Your task to perform on an android device: Go to battery settings Image 0: 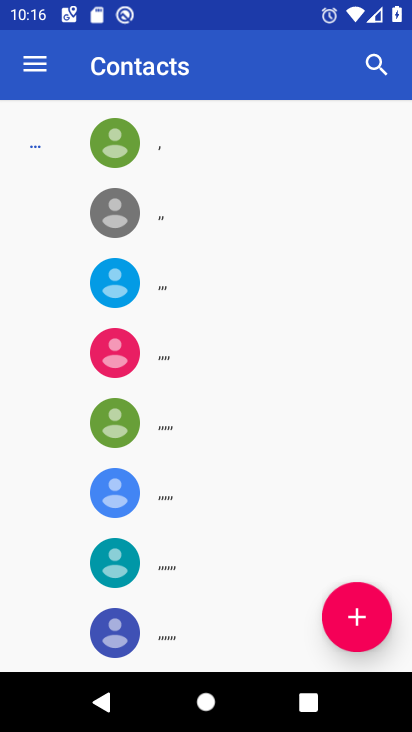
Step 0: press home button
Your task to perform on an android device: Go to battery settings Image 1: 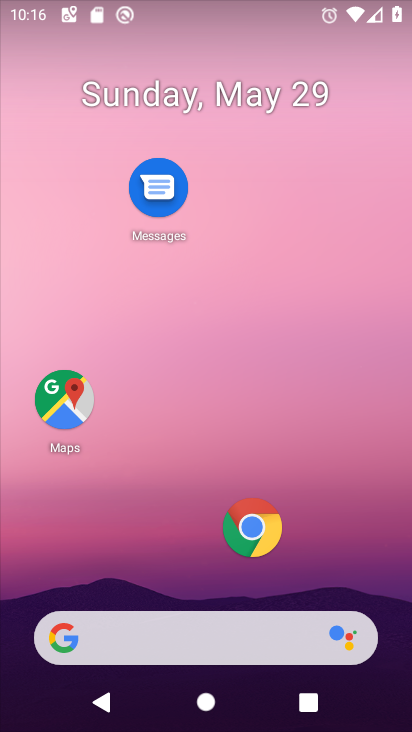
Step 1: drag from (202, 584) to (238, 50)
Your task to perform on an android device: Go to battery settings Image 2: 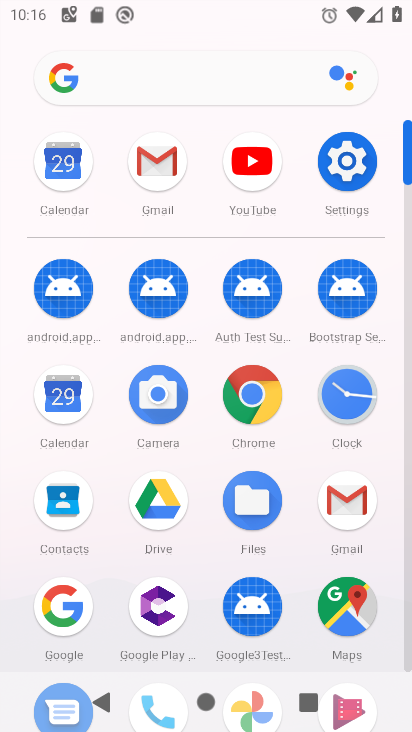
Step 2: click (346, 155)
Your task to perform on an android device: Go to battery settings Image 3: 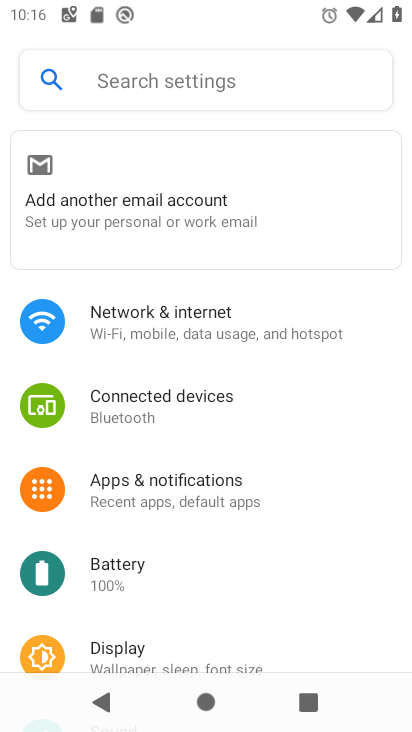
Step 3: click (163, 564)
Your task to perform on an android device: Go to battery settings Image 4: 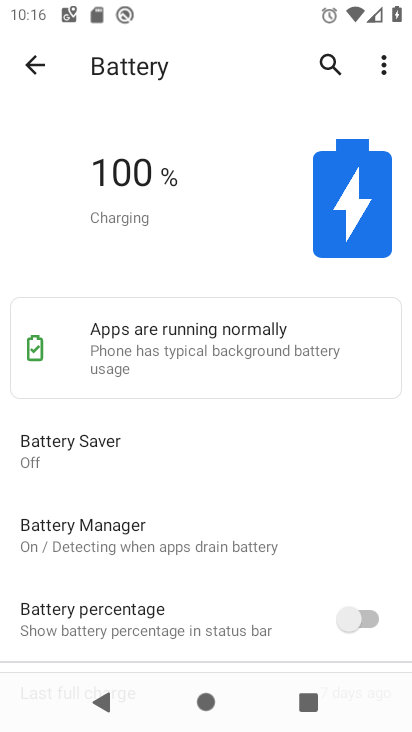
Step 4: task complete